Your task to perform on an android device: Open maps Image 0: 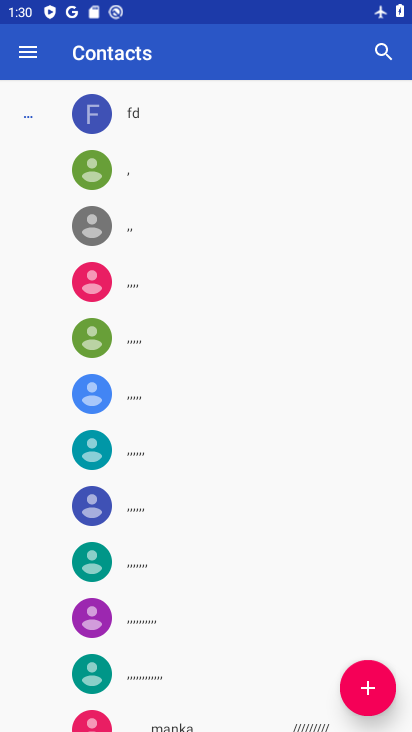
Step 0: press home button
Your task to perform on an android device: Open maps Image 1: 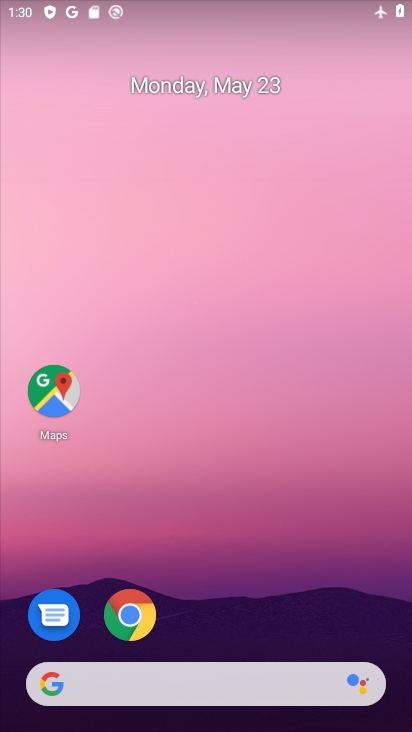
Step 1: click (44, 378)
Your task to perform on an android device: Open maps Image 2: 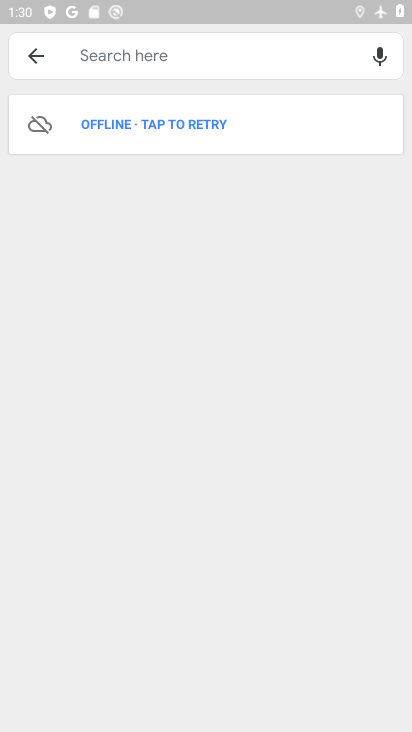
Step 2: click (100, 112)
Your task to perform on an android device: Open maps Image 3: 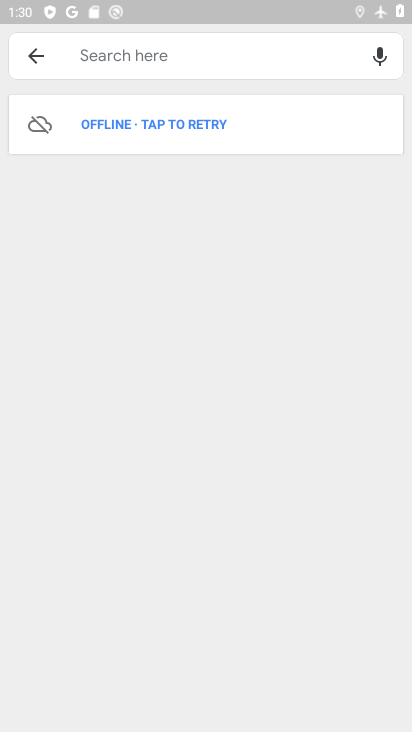
Step 3: click (100, 115)
Your task to perform on an android device: Open maps Image 4: 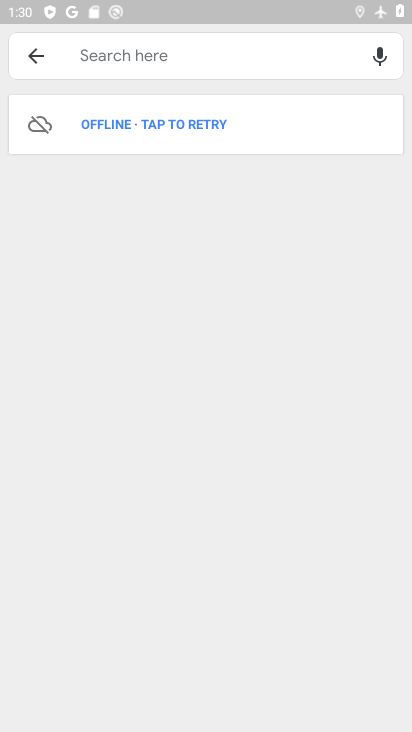
Step 4: task complete